Your task to perform on an android device: Check the weather Image 0: 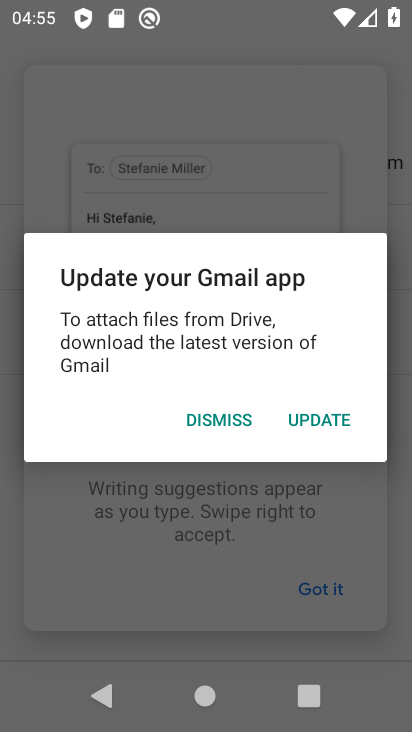
Step 0: press home button
Your task to perform on an android device: Check the weather Image 1: 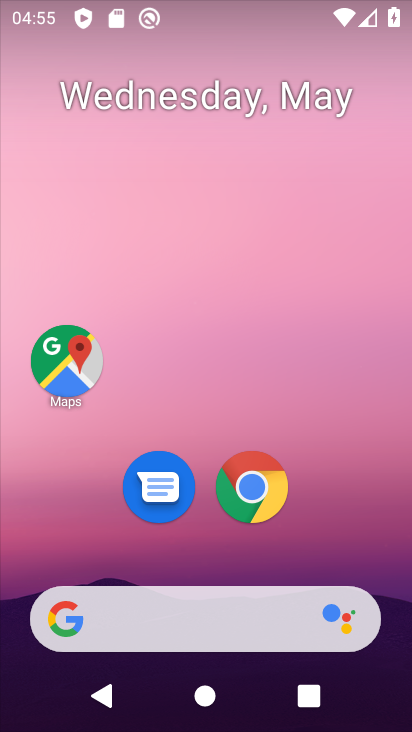
Step 1: drag from (348, 529) to (352, 144)
Your task to perform on an android device: Check the weather Image 2: 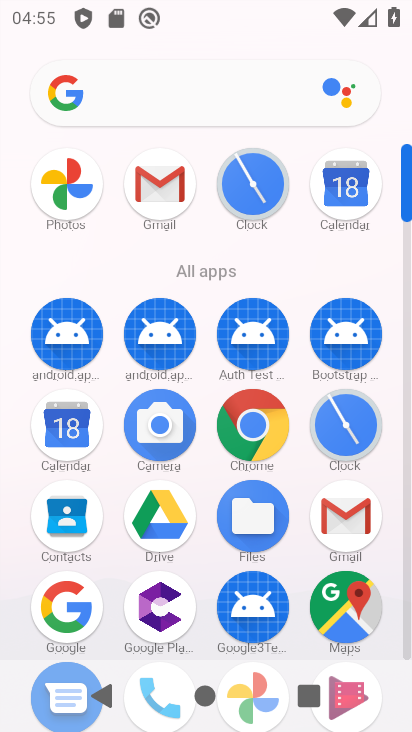
Step 2: click (192, 98)
Your task to perform on an android device: Check the weather Image 3: 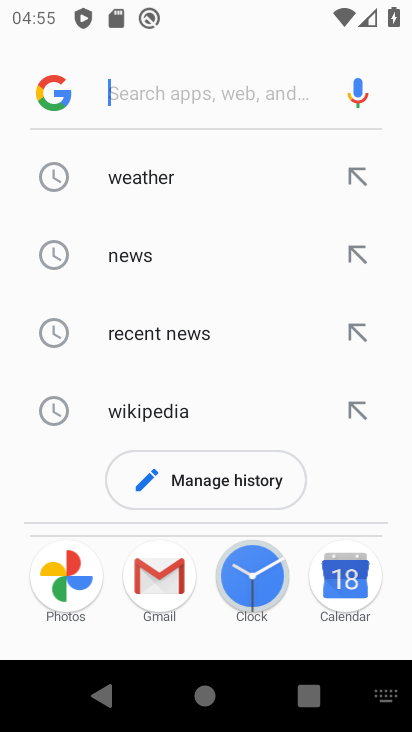
Step 3: click (169, 164)
Your task to perform on an android device: Check the weather Image 4: 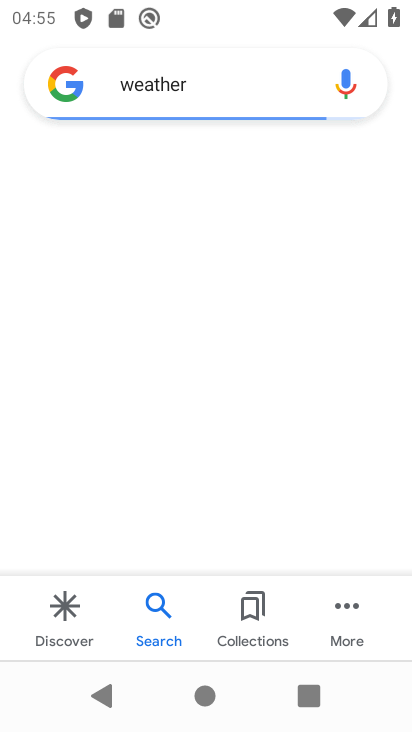
Step 4: task complete